Your task to perform on an android device: Search for seafood restaurants on Google Maps Image 0: 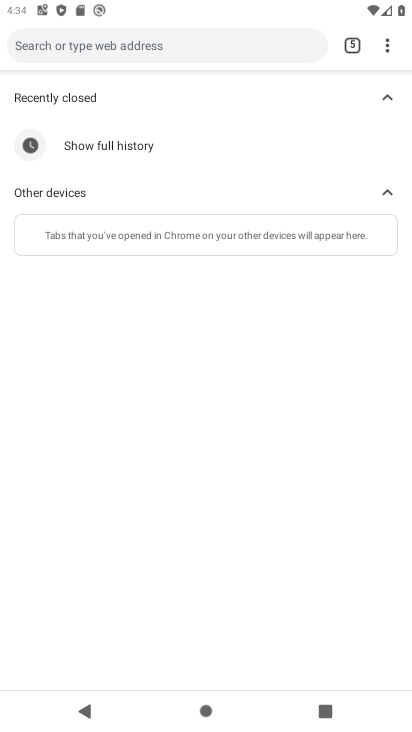
Step 0: press home button
Your task to perform on an android device: Search for seafood restaurants on Google Maps Image 1: 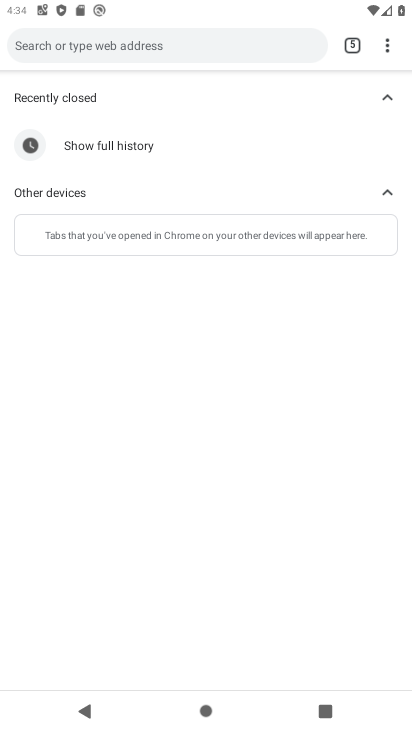
Step 1: press home button
Your task to perform on an android device: Search for seafood restaurants on Google Maps Image 2: 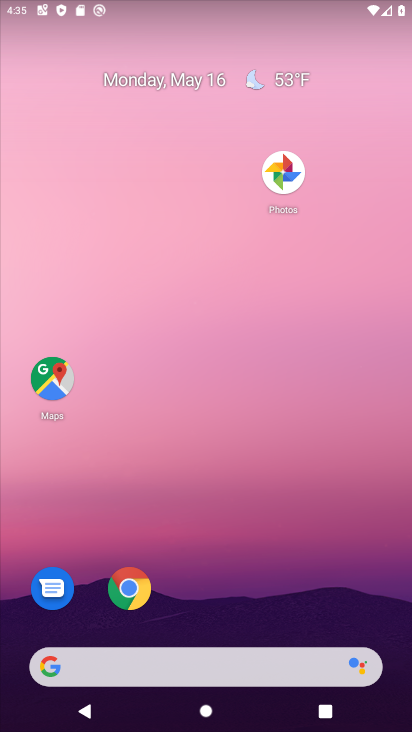
Step 2: click (42, 378)
Your task to perform on an android device: Search for seafood restaurants on Google Maps Image 3: 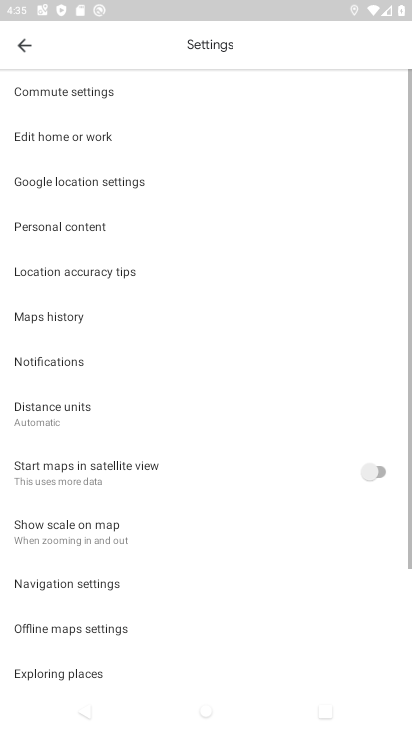
Step 3: click (32, 41)
Your task to perform on an android device: Search for seafood restaurants on Google Maps Image 4: 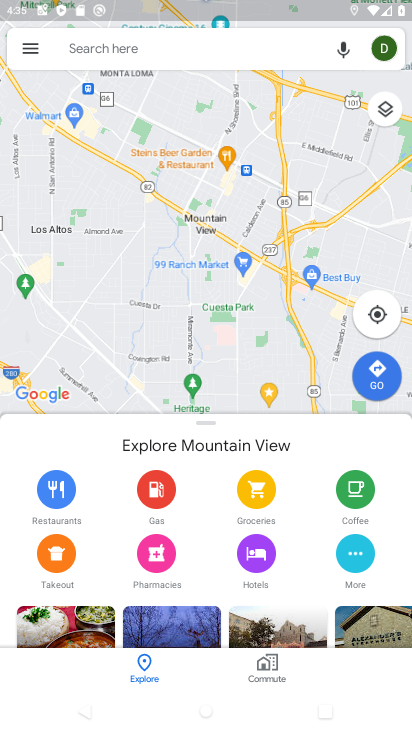
Step 4: click (193, 42)
Your task to perform on an android device: Search for seafood restaurants on Google Maps Image 5: 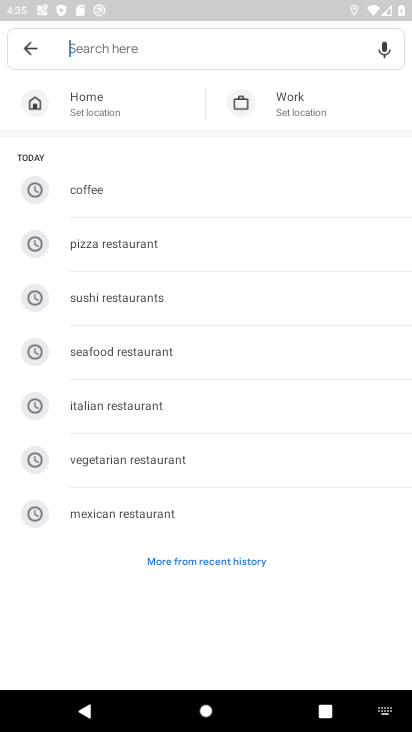
Step 5: click (173, 369)
Your task to perform on an android device: Search for seafood restaurants on Google Maps Image 6: 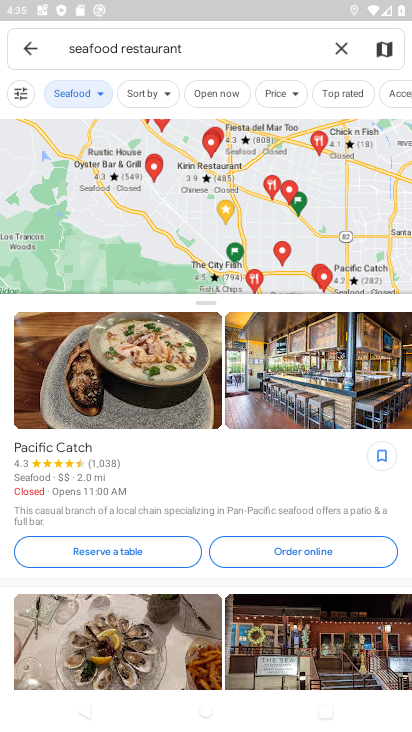
Step 6: task complete